Your task to perform on an android device: What is the recent news? Image 0: 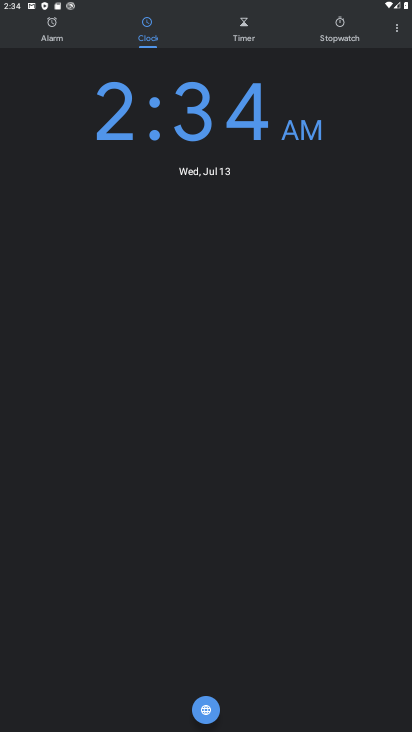
Step 0: press home button
Your task to perform on an android device: What is the recent news? Image 1: 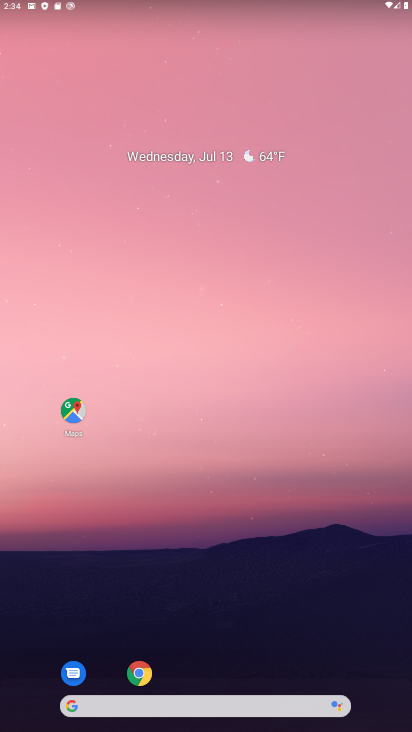
Step 1: drag from (339, 640) to (362, 458)
Your task to perform on an android device: What is the recent news? Image 2: 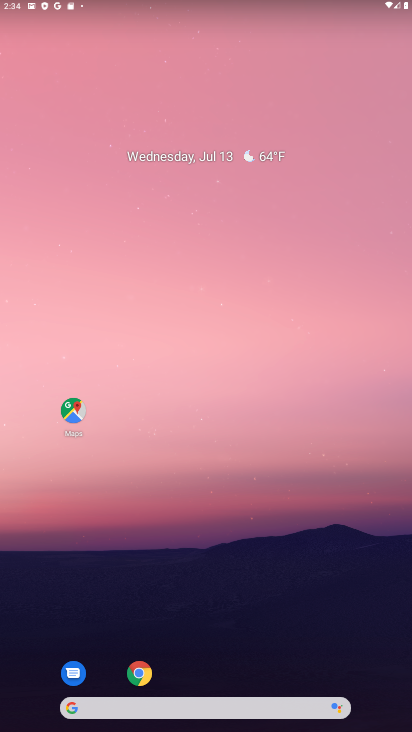
Step 2: drag from (252, 661) to (273, 17)
Your task to perform on an android device: What is the recent news? Image 3: 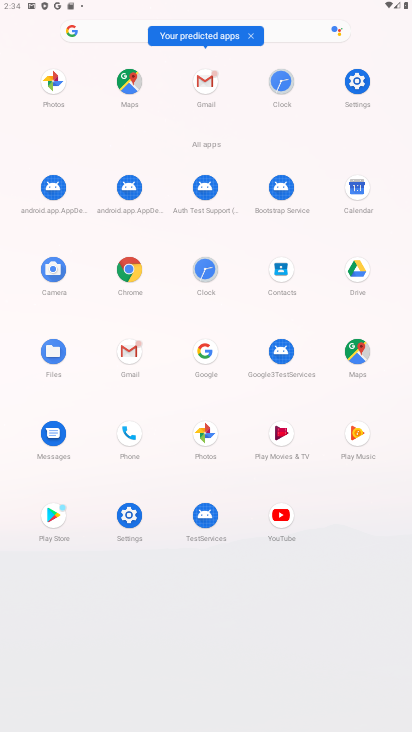
Step 3: click (127, 273)
Your task to perform on an android device: What is the recent news? Image 4: 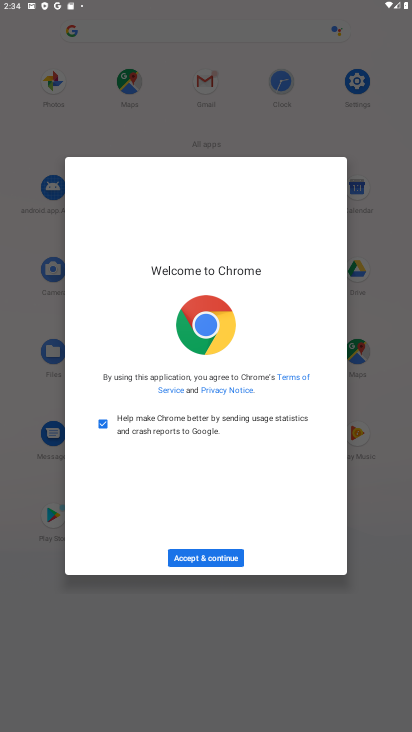
Step 4: click (219, 557)
Your task to perform on an android device: What is the recent news? Image 5: 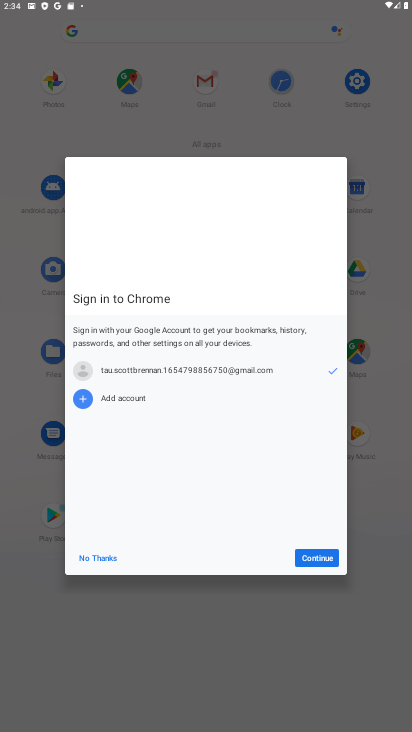
Step 5: click (298, 557)
Your task to perform on an android device: What is the recent news? Image 6: 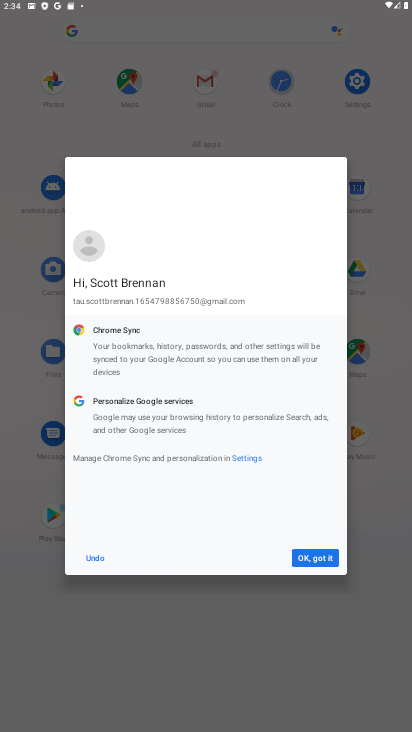
Step 6: click (298, 557)
Your task to perform on an android device: What is the recent news? Image 7: 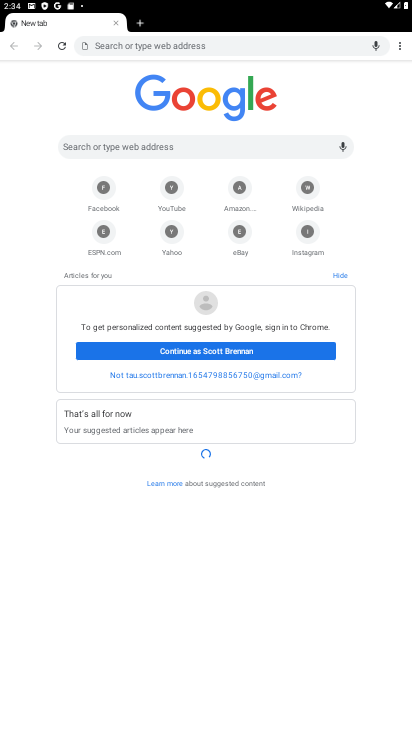
Step 7: click (134, 39)
Your task to perform on an android device: What is the recent news? Image 8: 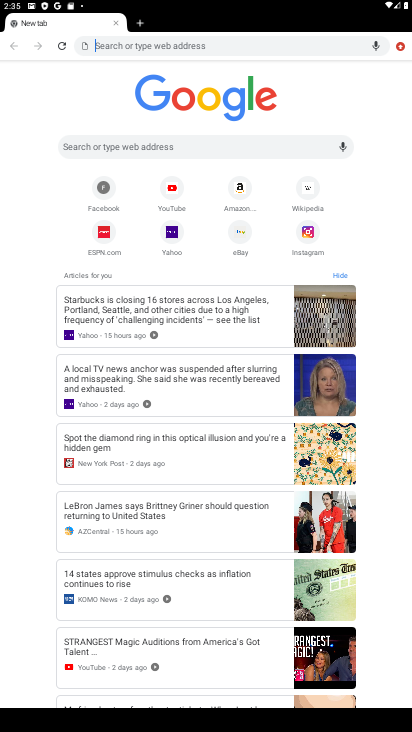
Step 8: type "What is the recent news?"
Your task to perform on an android device: What is the recent news? Image 9: 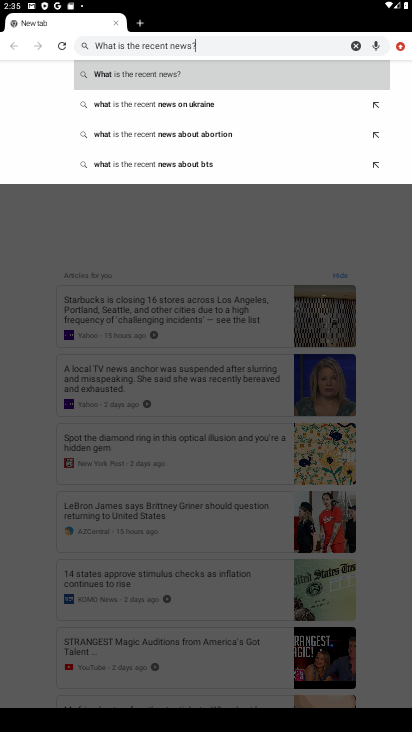
Step 9: click (138, 79)
Your task to perform on an android device: What is the recent news? Image 10: 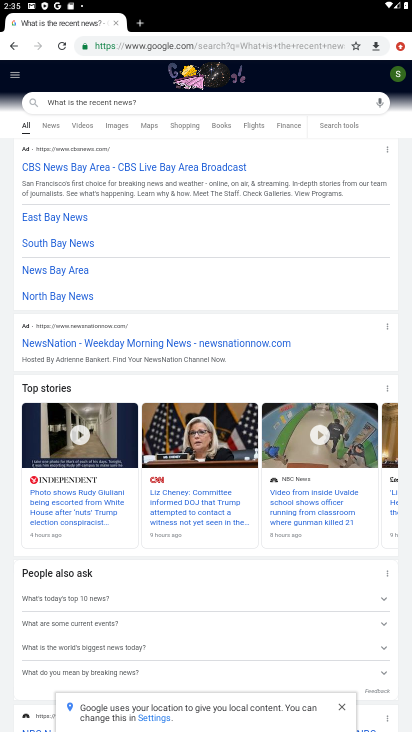
Step 10: task complete